Your task to perform on an android device: Open Reddit.com Image 0: 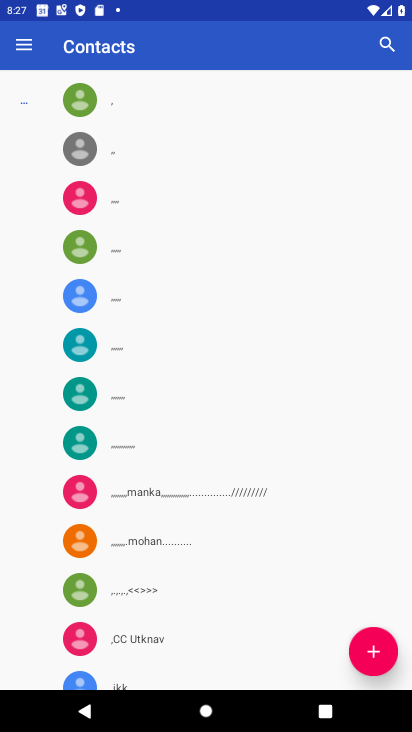
Step 0: press home button
Your task to perform on an android device: Open Reddit.com Image 1: 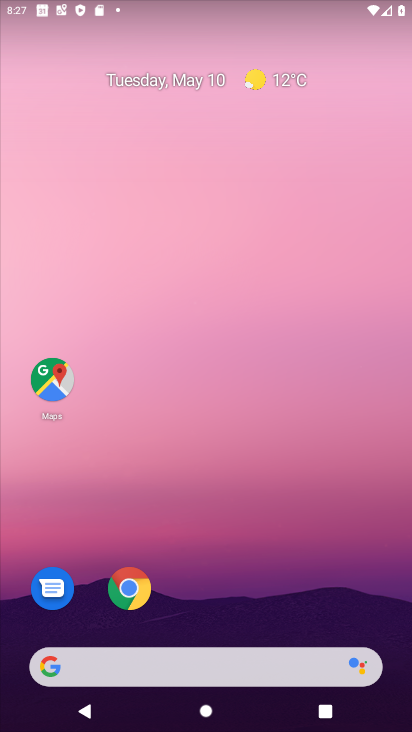
Step 1: click (271, 654)
Your task to perform on an android device: Open Reddit.com Image 2: 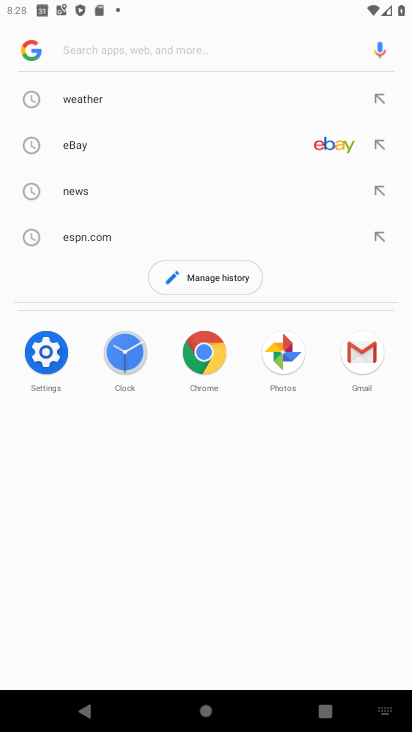
Step 2: type "reddit.com"
Your task to perform on an android device: Open Reddit.com Image 3: 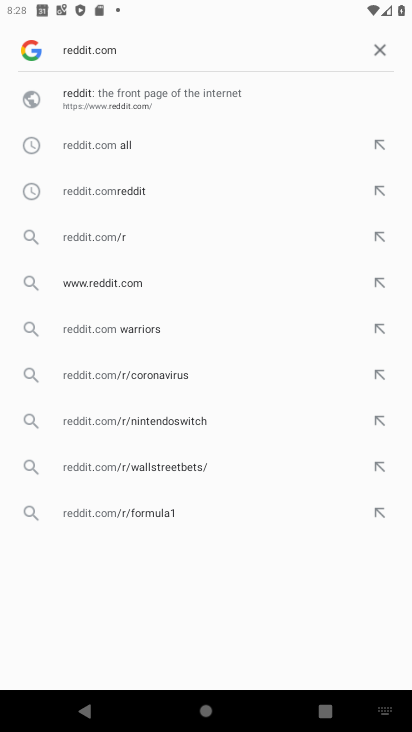
Step 3: click (200, 116)
Your task to perform on an android device: Open Reddit.com Image 4: 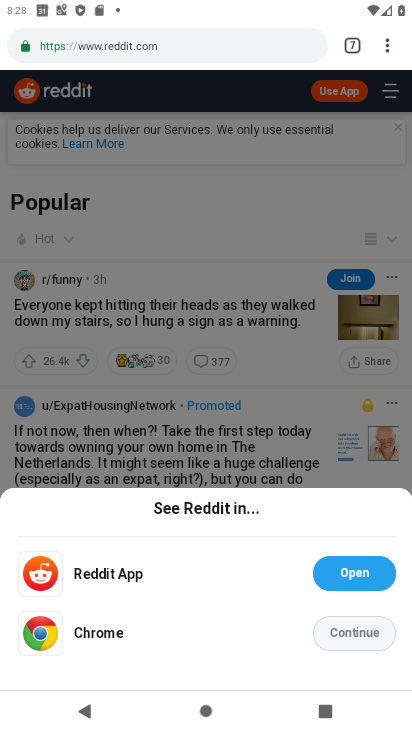
Step 4: task complete